Your task to perform on an android device: see creations saved in the google photos Image 0: 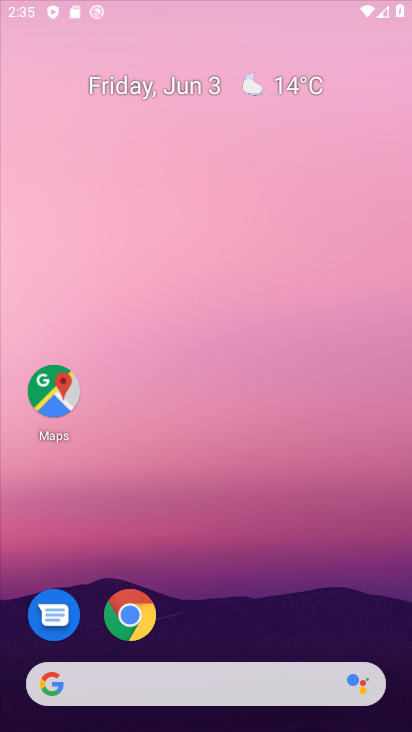
Step 0: press home button
Your task to perform on an android device: see creations saved in the google photos Image 1: 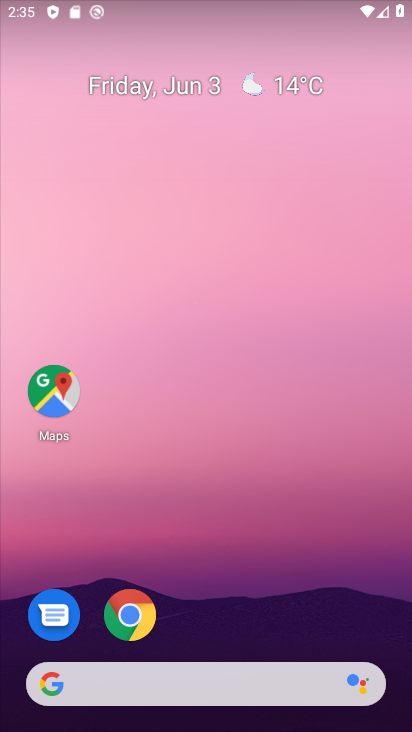
Step 1: drag from (262, 634) to (270, 193)
Your task to perform on an android device: see creations saved in the google photos Image 2: 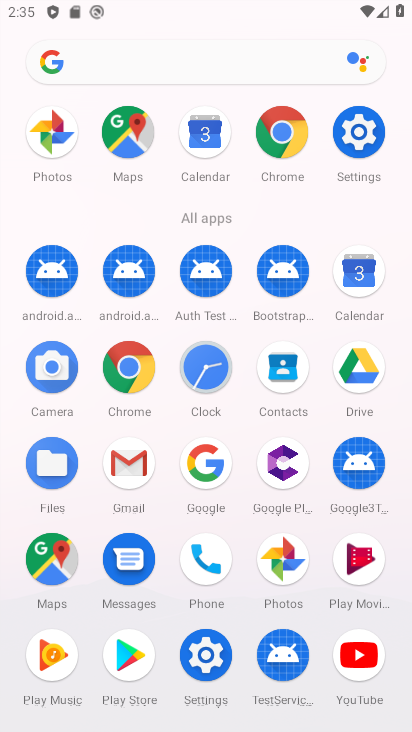
Step 2: click (56, 130)
Your task to perform on an android device: see creations saved in the google photos Image 3: 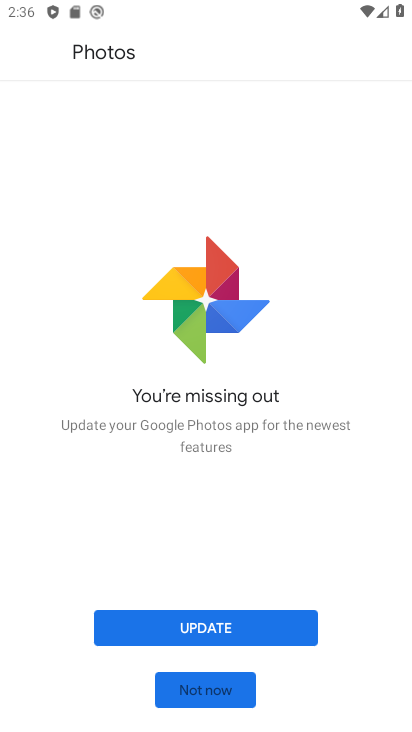
Step 3: click (220, 693)
Your task to perform on an android device: see creations saved in the google photos Image 4: 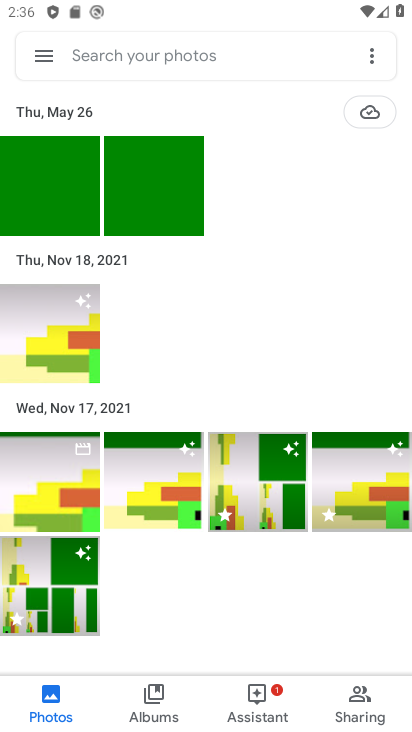
Step 4: click (213, 53)
Your task to perform on an android device: see creations saved in the google photos Image 5: 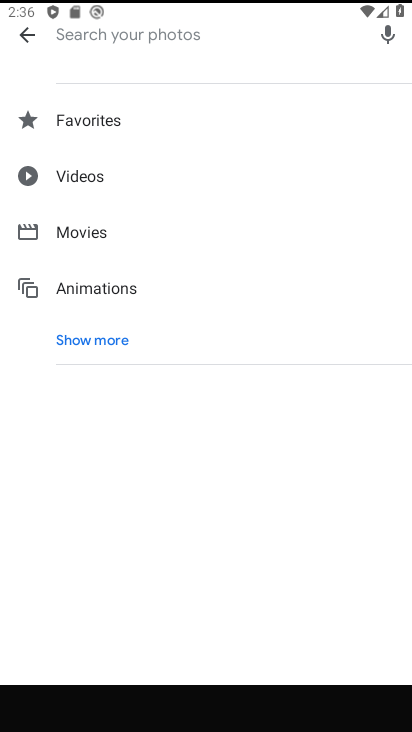
Step 5: click (211, 53)
Your task to perform on an android device: see creations saved in the google photos Image 6: 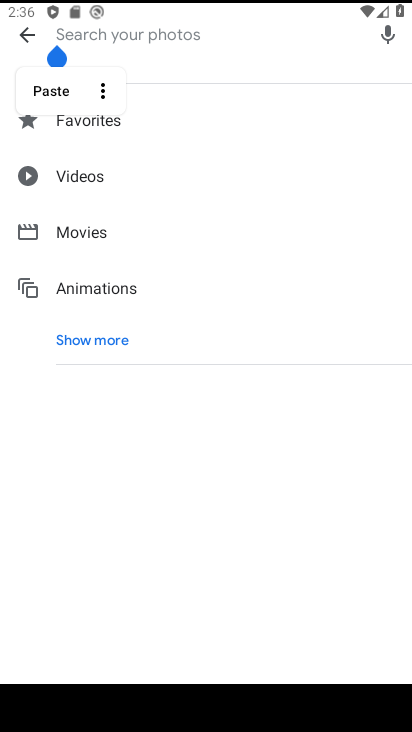
Step 6: click (96, 342)
Your task to perform on an android device: see creations saved in the google photos Image 7: 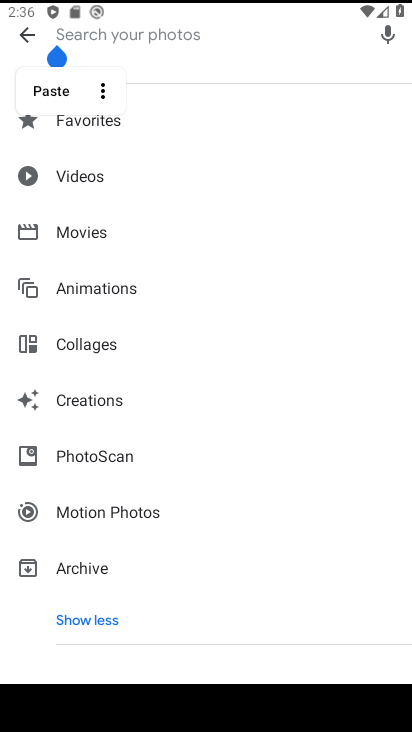
Step 7: click (84, 398)
Your task to perform on an android device: see creations saved in the google photos Image 8: 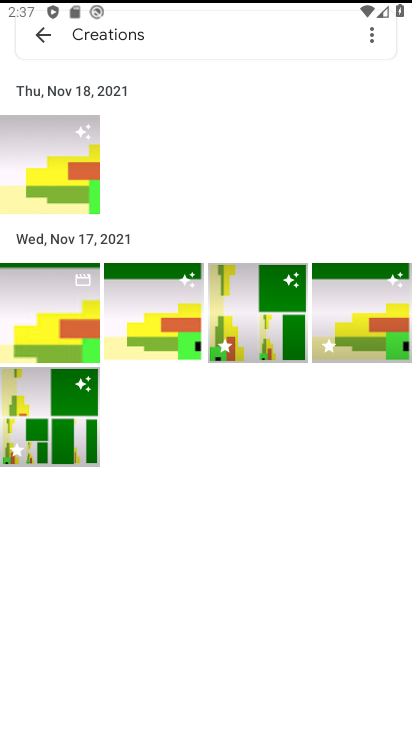
Step 8: task complete